Your task to perform on an android device: Go to calendar. Show me events next week Image 0: 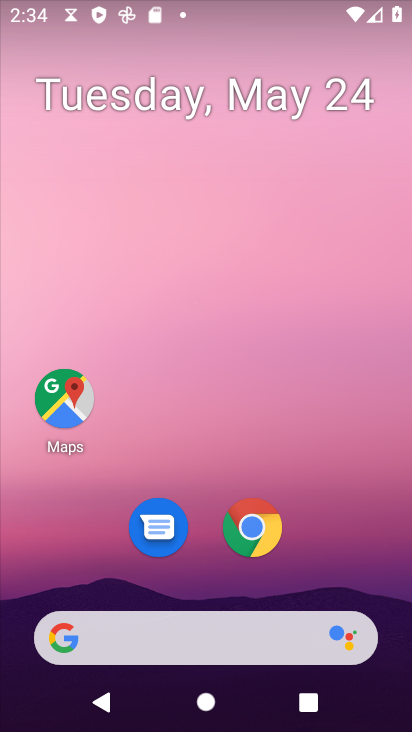
Step 0: drag from (220, 641) to (171, 214)
Your task to perform on an android device: Go to calendar. Show me events next week Image 1: 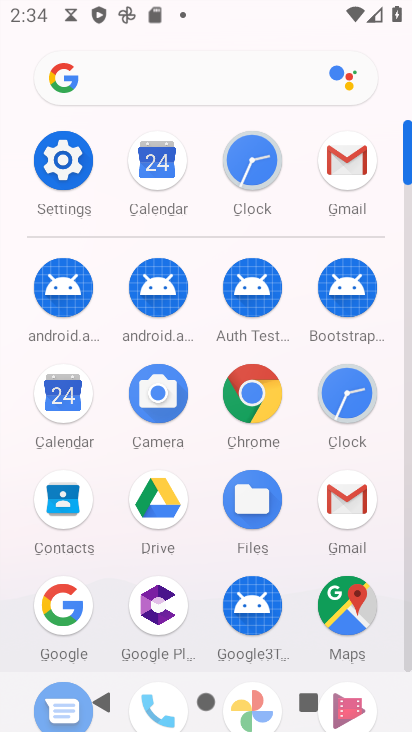
Step 1: click (71, 408)
Your task to perform on an android device: Go to calendar. Show me events next week Image 2: 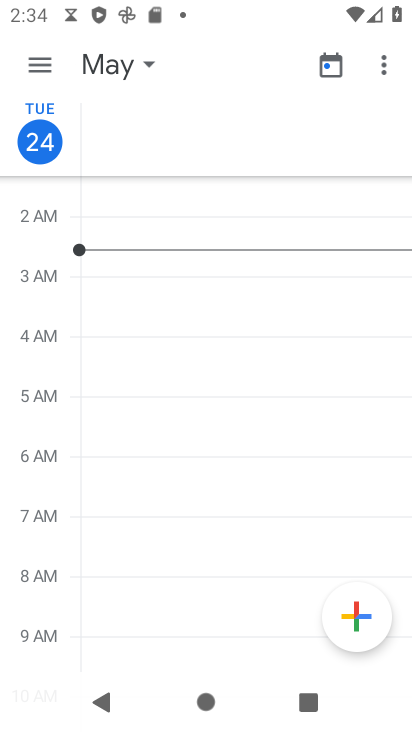
Step 2: click (87, 63)
Your task to perform on an android device: Go to calendar. Show me events next week Image 3: 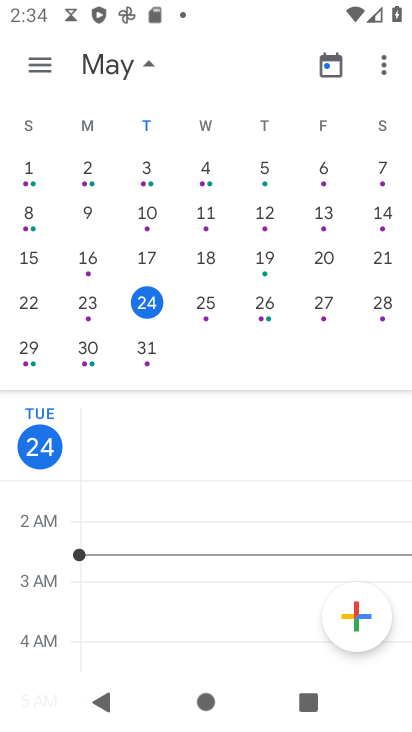
Step 3: click (30, 353)
Your task to perform on an android device: Go to calendar. Show me events next week Image 4: 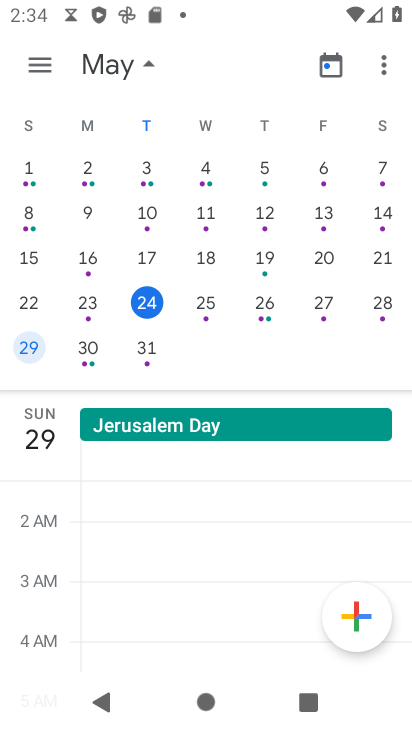
Step 4: click (36, 62)
Your task to perform on an android device: Go to calendar. Show me events next week Image 5: 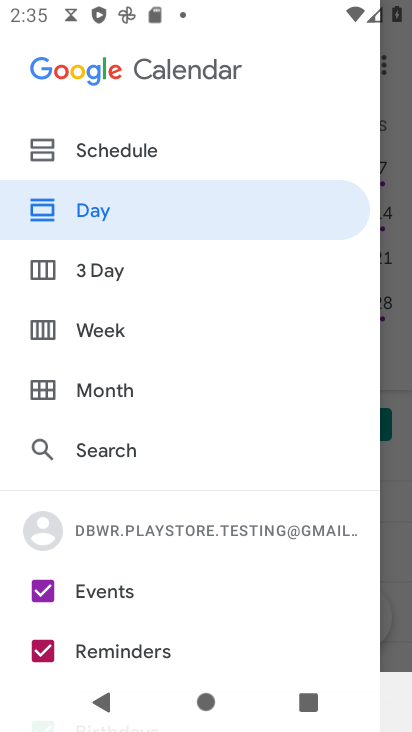
Step 5: click (119, 331)
Your task to perform on an android device: Go to calendar. Show me events next week Image 6: 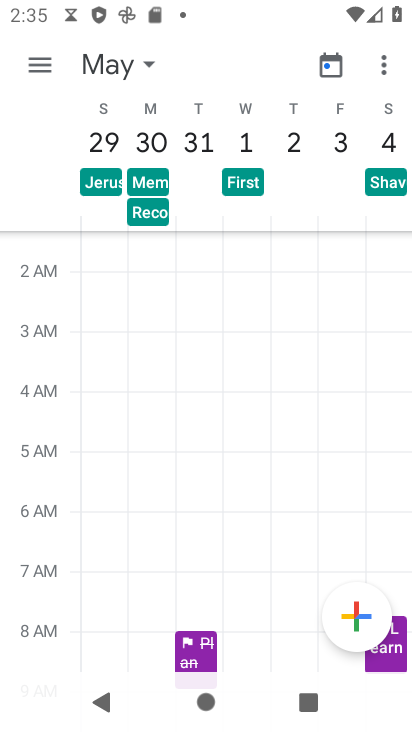
Step 6: click (42, 58)
Your task to perform on an android device: Go to calendar. Show me events next week Image 7: 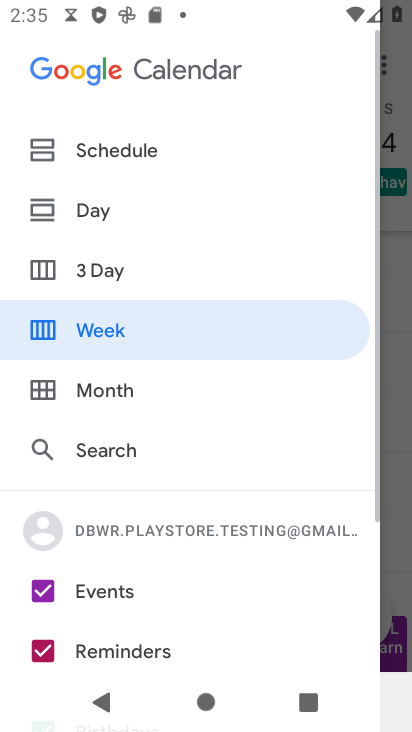
Step 7: click (76, 147)
Your task to perform on an android device: Go to calendar. Show me events next week Image 8: 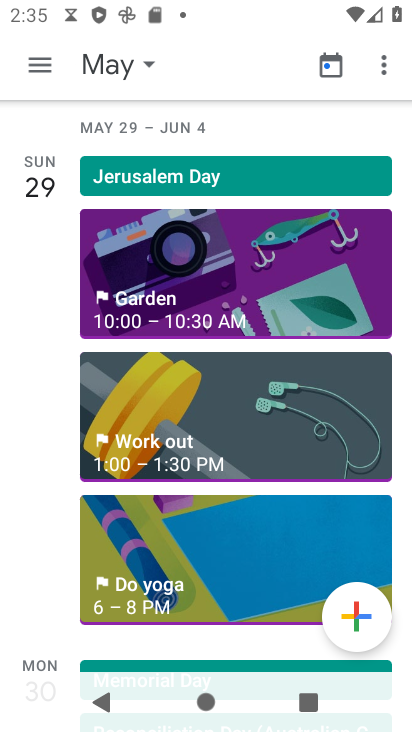
Step 8: click (148, 290)
Your task to perform on an android device: Go to calendar. Show me events next week Image 9: 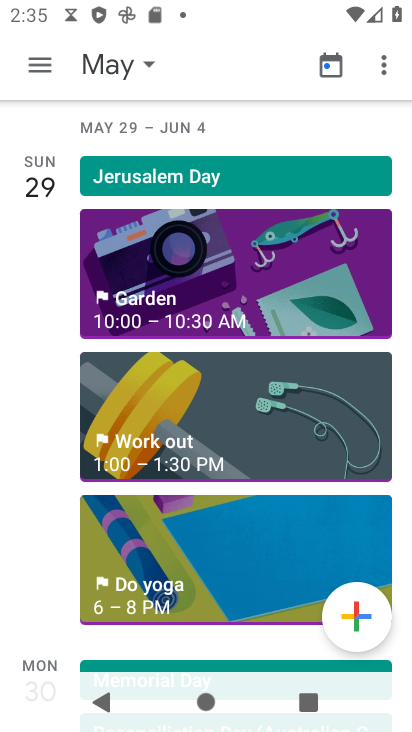
Step 9: click (155, 300)
Your task to perform on an android device: Go to calendar. Show me events next week Image 10: 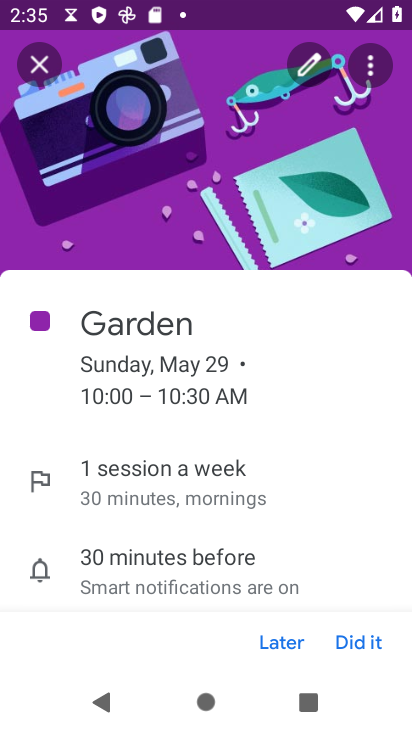
Step 10: task complete